Your task to perform on an android device: turn off improve location accuracy Image 0: 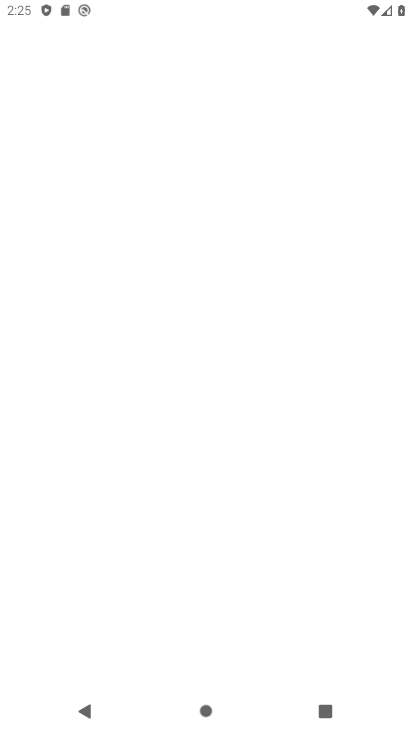
Step 0: drag from (202, 671) to (270, 312)
Your task to perform on an android device: turn off improve location accuracy Image 1: 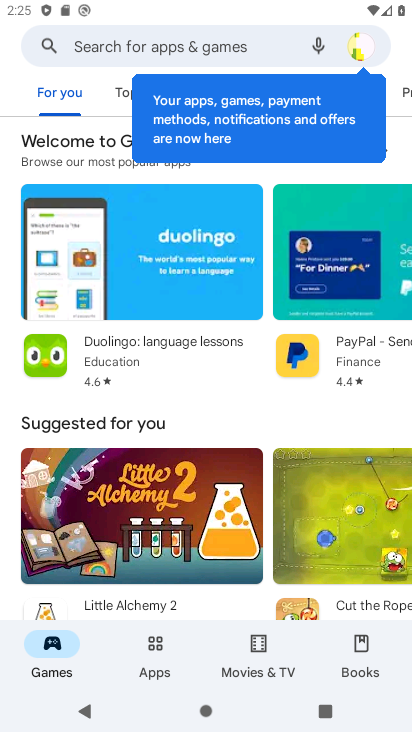
Step 1: press home button
Your task to perform on an android device: turn off improve location accuracy Image 2: 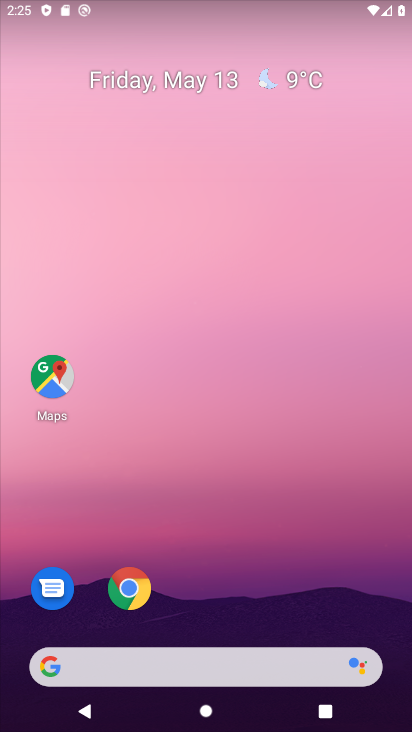
Step 2: drag from (206, 645) to (190, 170)
Your task to perform on an android device: turn off improve location accuracy Image 3: 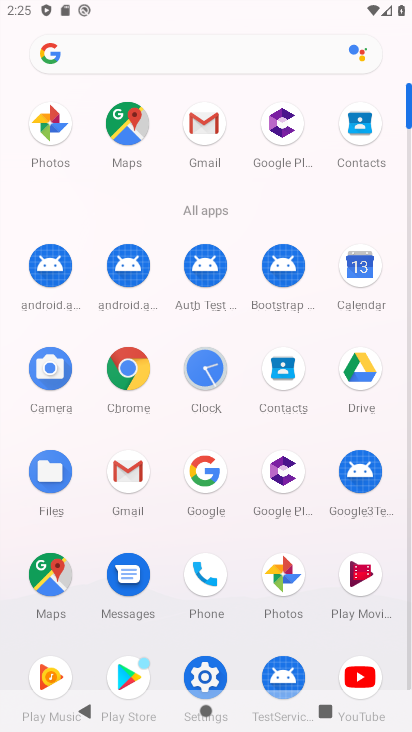
Step 3: click (203, 658)
Your task to perform on an android device: turn off improve location accuracy Image 4: 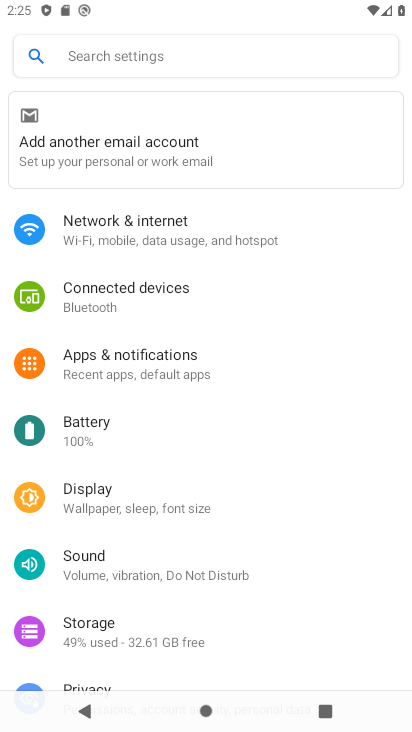
Step 4: drag from (177, 542) to (153, 167)
Your task to perform on an android device: turn off improve location accuracy Image 5: 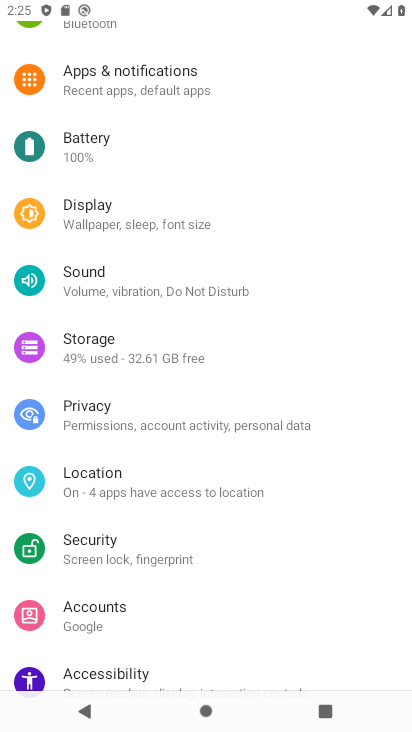
Step 5: click (134, 503)
Your task to perform on an android device: turn off improve location accuracy Image 6: 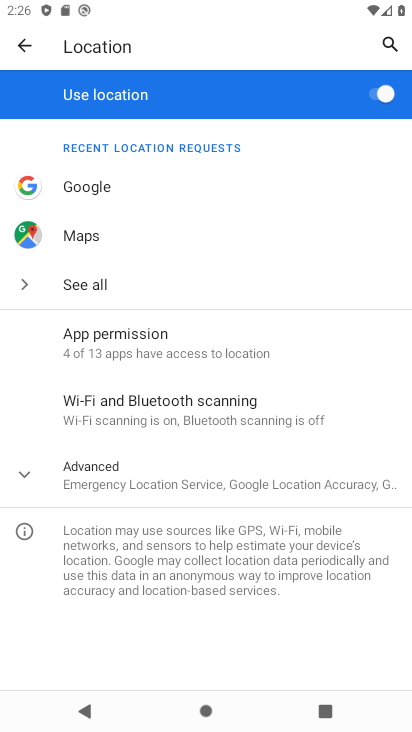
Step 6: click (162, 479)
Your task to perform on an android device: turn off improve location accuracy Image 7: 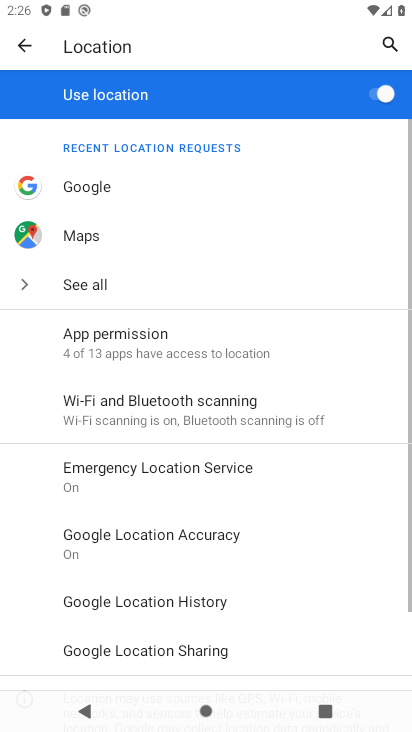
Step 7: click (232, 533)
Your task to perform on an android device: turn off improve location accuracy Image 8: 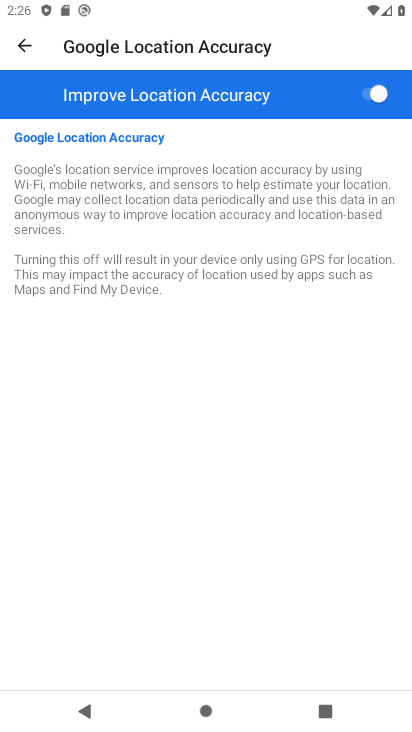
Step 8: click (378, 104)
Your task to perform on an android device: turn off improve location accuracy Image 9: 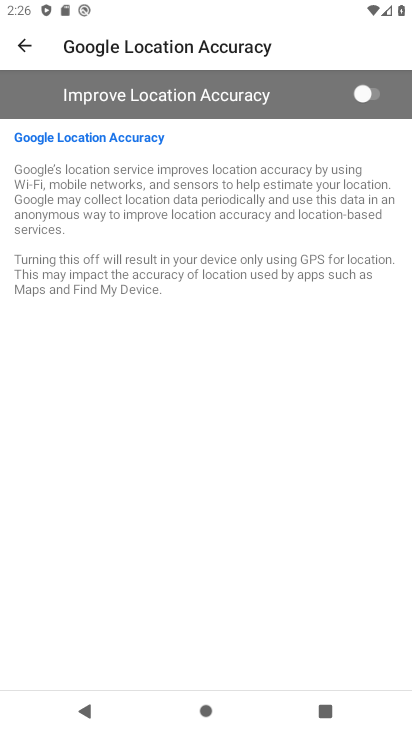
Step 9: task complete